Your task to perform on an android device: toggle notifications settings in the gmail app Image 0: 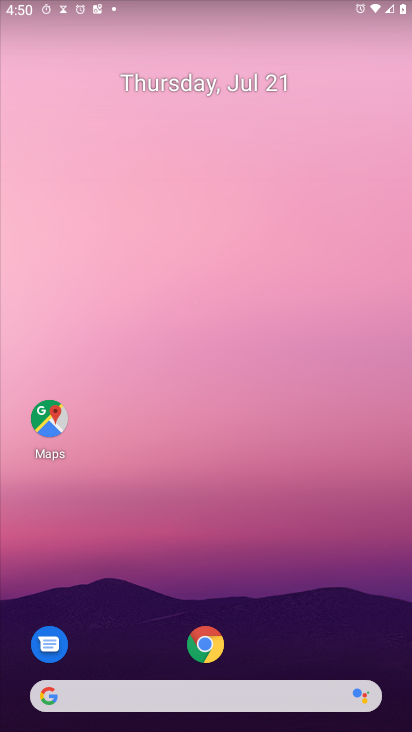
Step 0: press home button
Your task to perform on an android device: toggle notifications settings in the gmail app Image 1: 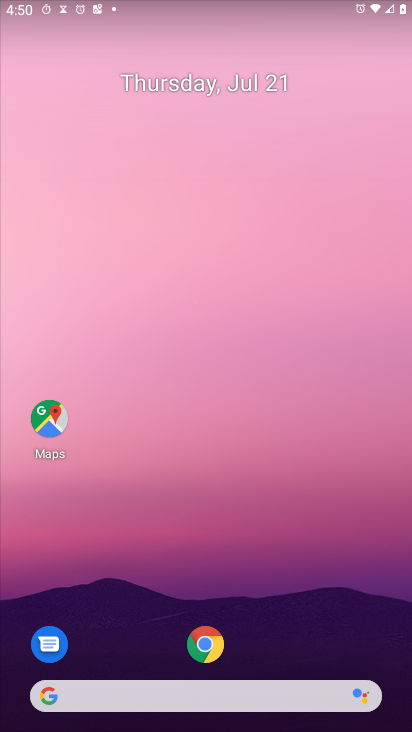
Step 1: drag from (270, 637) to (197, 69)
Your task to perform on an android device: toggle notifications settings in the gmail app Image 2: 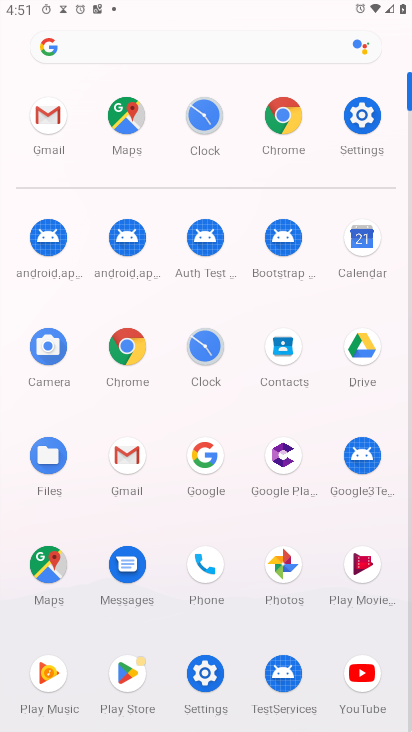
Step 2: click (40, 114)
Your task to perform on an android device: toggle notifications settings in the gmail app Image 3: 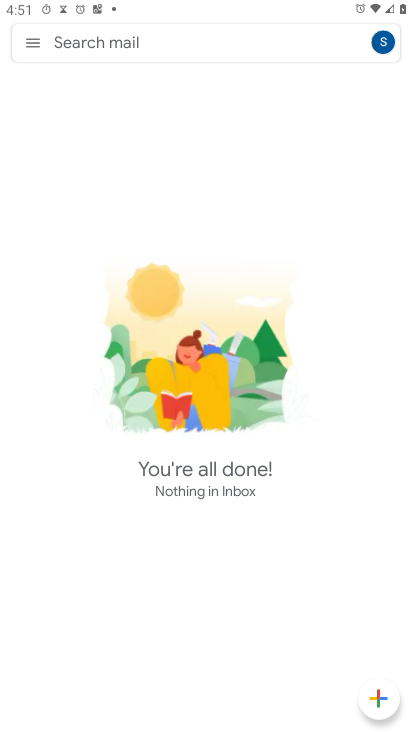
Step 3: click (34, 41)
Your task to perform on an android device: toggle notifications settings in the gmail app Image 4: 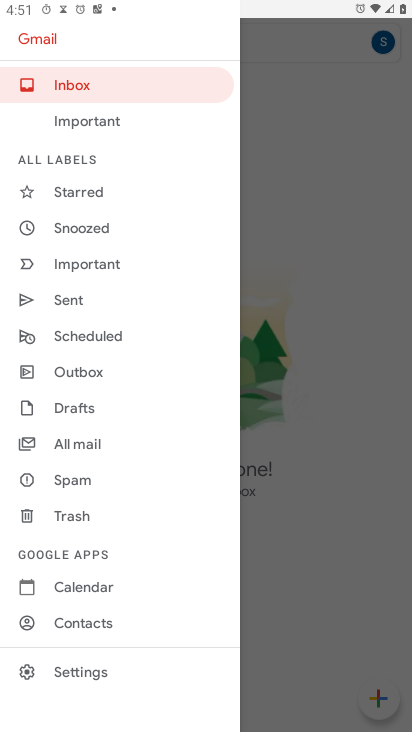
Step 4: click (68, 672)
Your task to perform on an android device: toggle notifications settings in the gmail app Image 5: 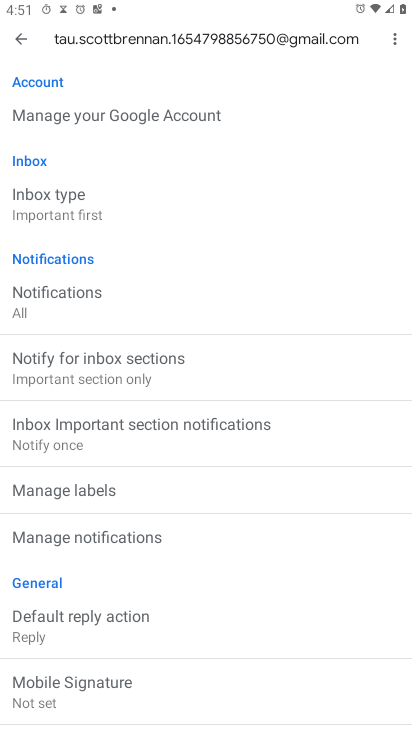
Step 5: click (81, 538)
Your task to perform on an android device: toggle notifications settings in the gmail app Image 6: 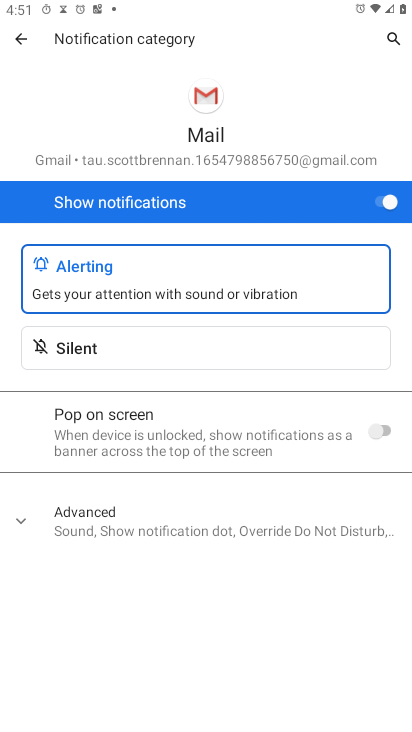
Step 6: click (389, 206)
Your task to perform on an android device: toggle notifications settings in the gmail app Image 7: 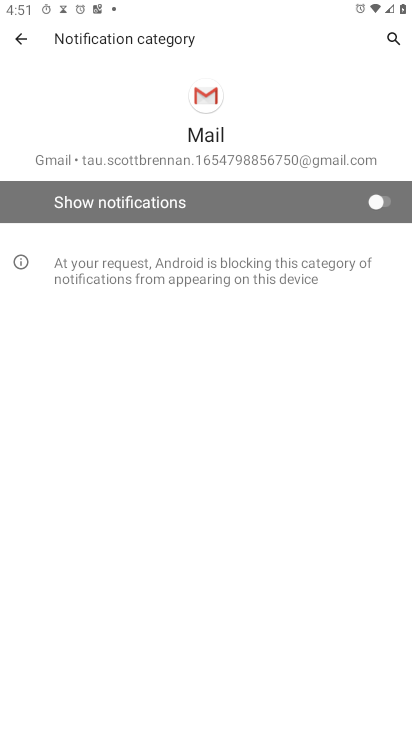
Step 7: task complete